Your task to perform on an android device: Show me popular games on the Play Store Image 0: 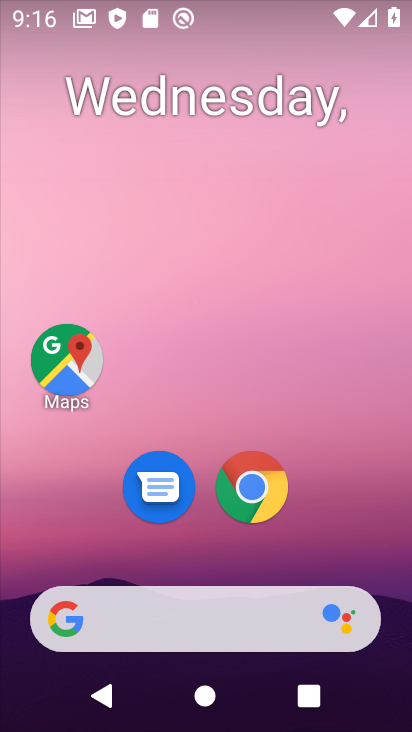
Step 0: drag from (188, 572) to (248, 67)
Your task to perform on an android device: Show me popular games on the Play Store Image 1: 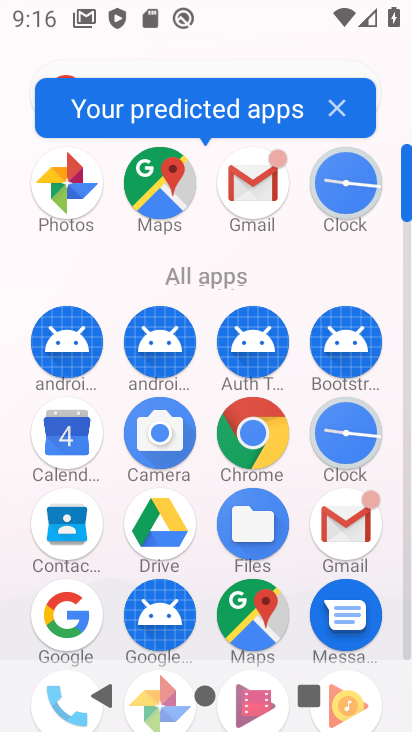
Step 1: drag from (116, 634) to (293, 158)
Your task to perform on an android device: Show me popular games on the Play Store Image 2: 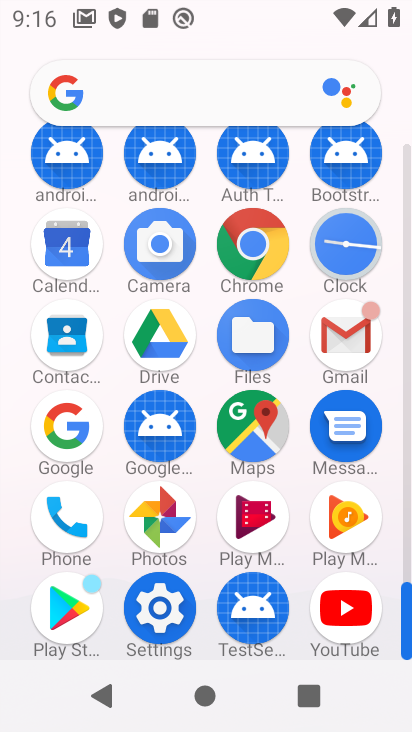
Step 2: click (66, 619)
Your task to perform on an android device: Show me popular games on the Play Store Image 3: 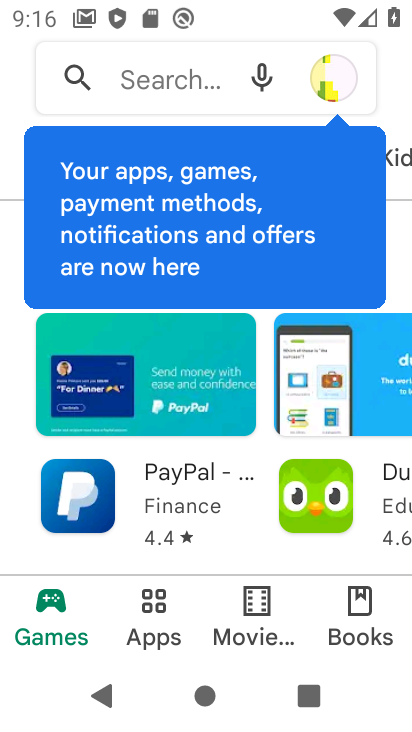
Step 3: drag from (118, 564) to (286, 13)
Your task to perform on an android device: Show me popular games on the Play Store Image 4: 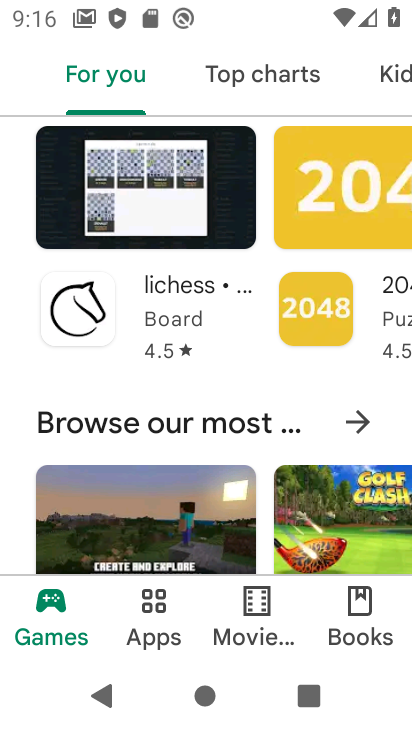
Step 4: drag from (257, 285) to (231, 578)
Your task to perform on an android device: Show me popular games on the Play Store Image 5: 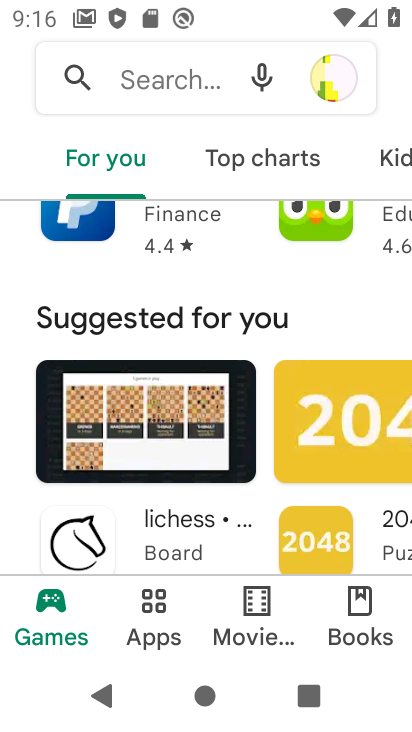
Step 5: drag from (259, 244) to (247, 643)
Your task to perform on an android device: Show me popular games on the Play Store Image 6: 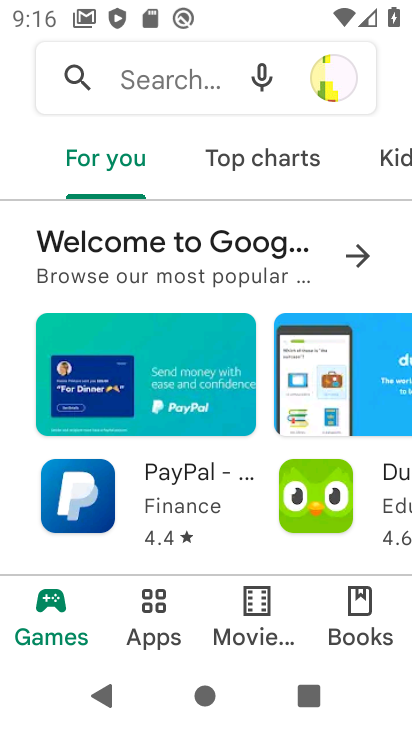
Step 6: drag from (229, 263) to (223, 581)
Your task to perform on an android device: Show me popular games on the Play Store Image 7: 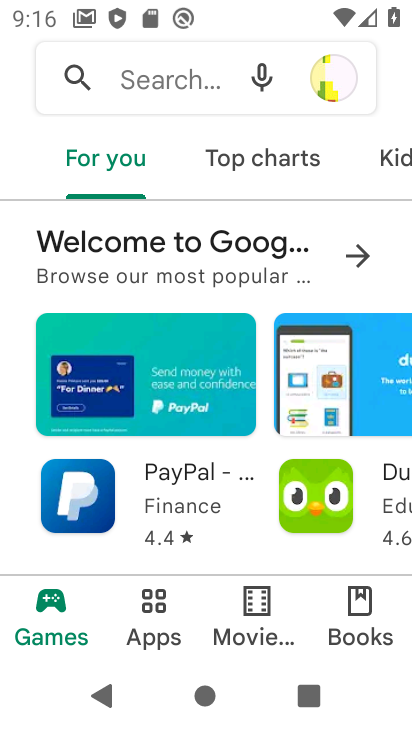
Step 7: drag from (134, 551) to (280, 109)
Your task to perform on an android device: Show me popular games on the Play Store Image 8: 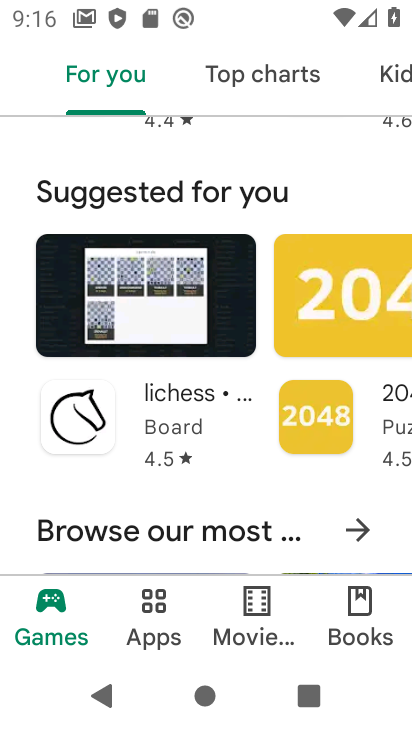
Step 8: drag from (187, 505) to (348, 204)
Your task to perform on an android device: Show me popular games on the Play Store Image 9: 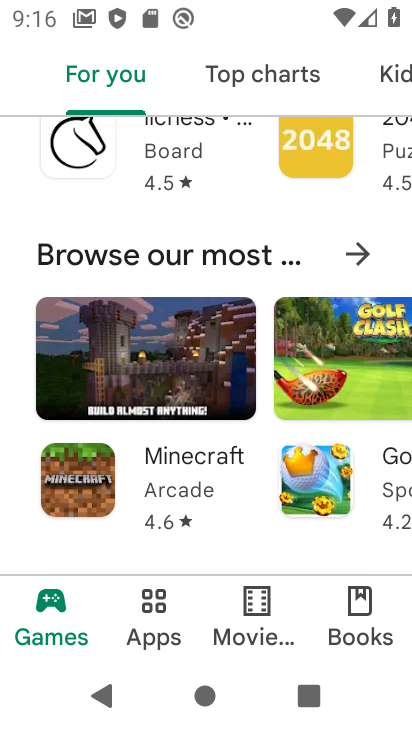
Step 9: drag from (168, 543) to (345, 90)
Your task to perform on an android device: Show me popular games on the Play Store Image 10: 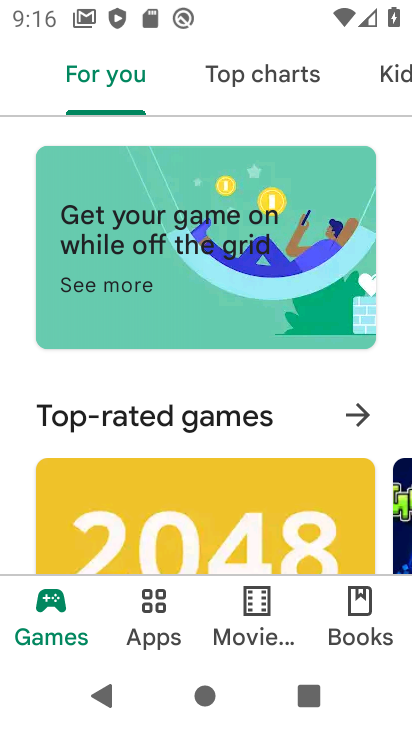
Step 10: drag from (152, 482) to (282, 155)
Your task to perform on an android device: Show me popular games on the Play Store Image 11: 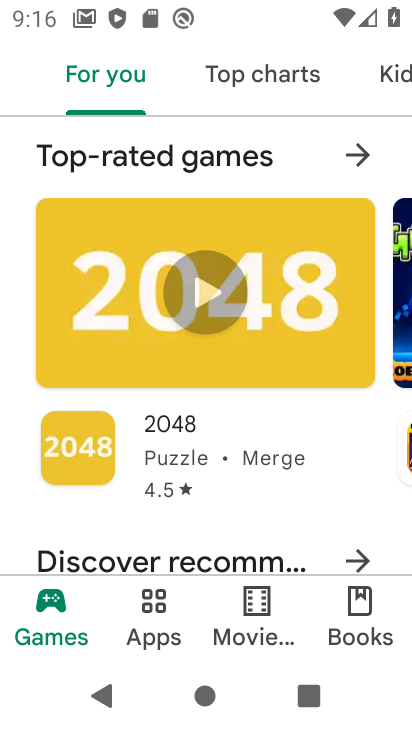
Step 11: drag from (149, 458) to (329, 77)
Your task to perform on an android device: Show me popular games on the Play Store Image 12: 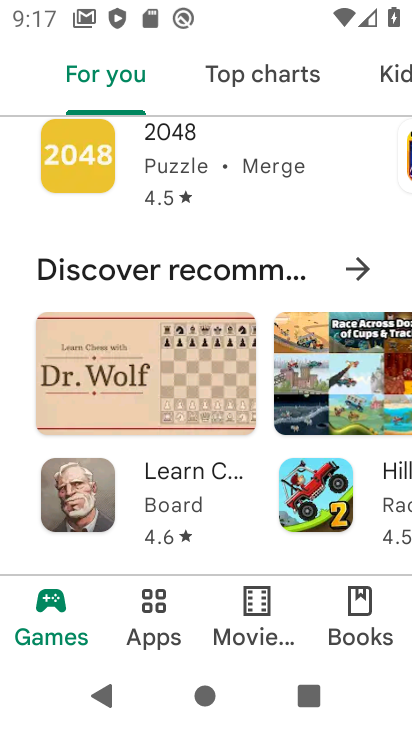
Step 12: drag from (139, 541) to (314, 95)
Your task to perform on an android device: Show me popular games on the Play Store Image 13: 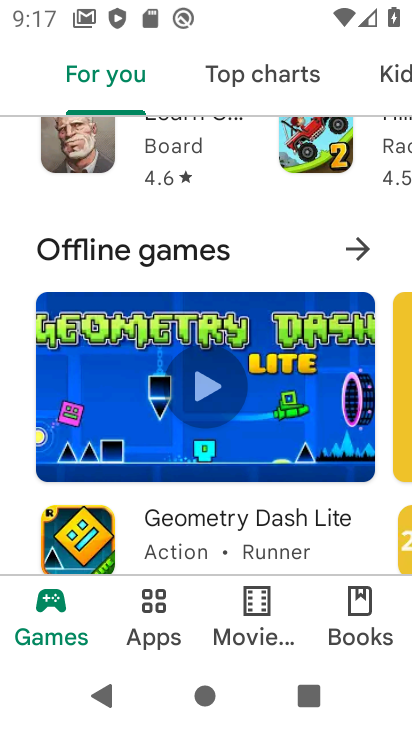
Step 13: drag from (309, 185) to (276, 631)
Your task to perform on an android device: Show me popular games on the Play Store Image 14: 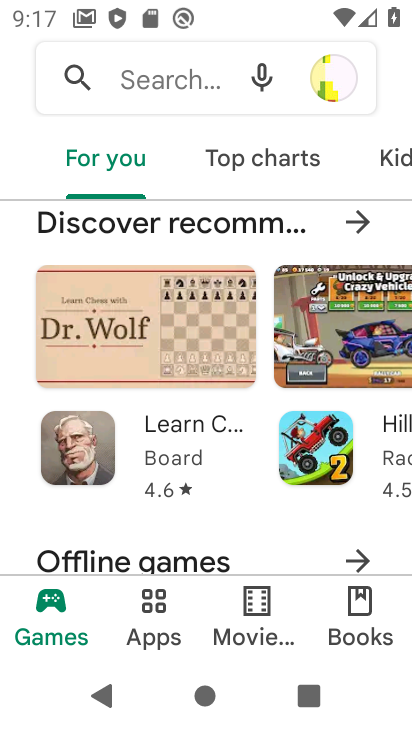
Step 14: drag from (275, 290) to (276, 566)
Your task to perform on an android device: Show me popular games on the Play Store Image 15: 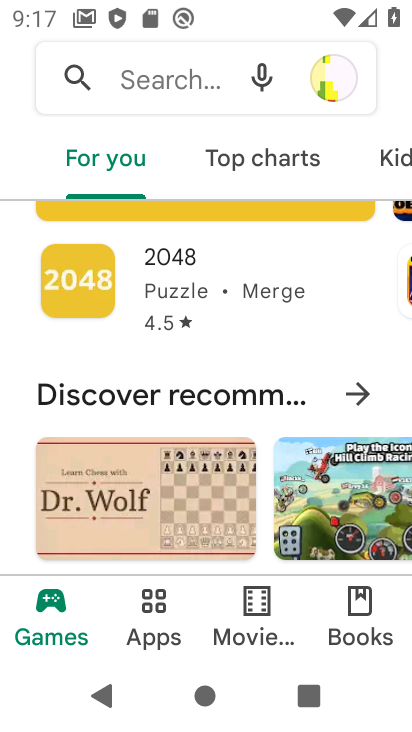
Step 15: drag from (301, 249) to (296, 572)
Your task to perform on an android device: Show me popular games on the Play Store Image 16: 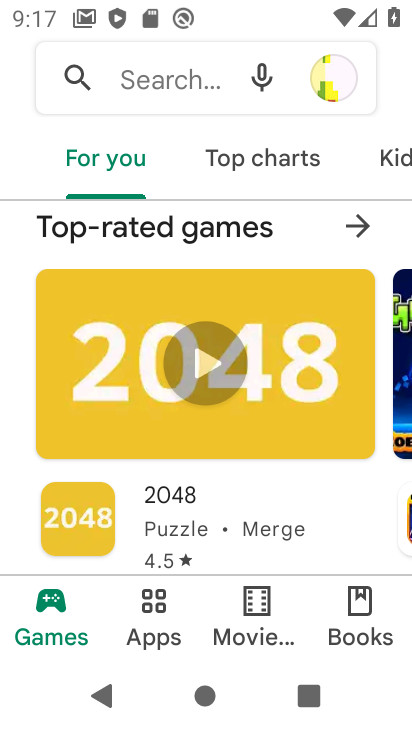
Step 16: drag from (291, 212) to (268, 643)
Your task to perform on an android device: Show me popular games on the Play Store Image 17: 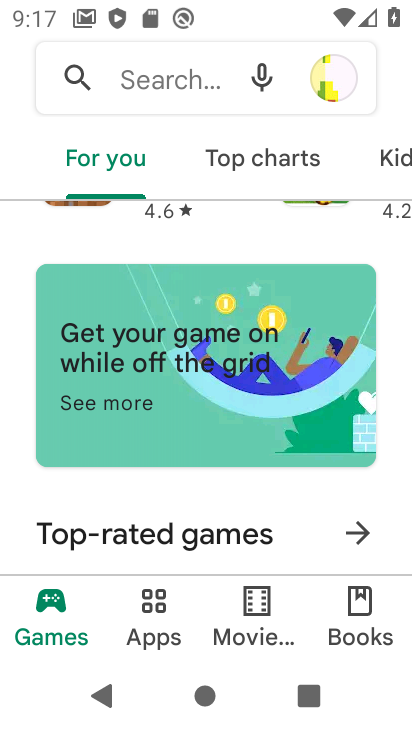
Step 17: drag from (254, 213) to (235, 651)
Your task to perform on an android device: Show me popular games on the Play Store Image 18: 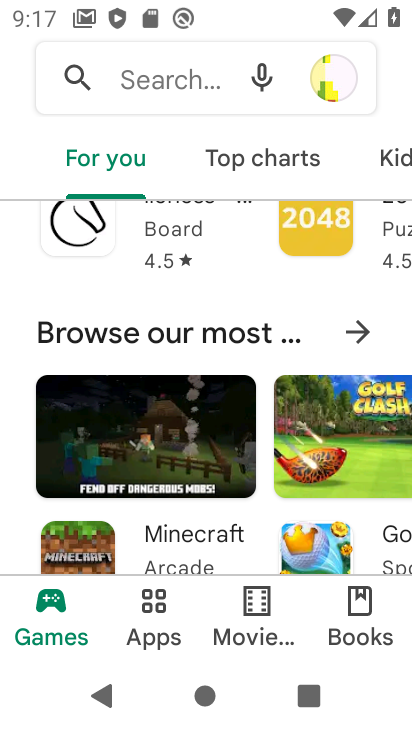
Step 18: click (359, 334)
Your task to perform on an android device: Show me popular games on the Play Store Image 19: 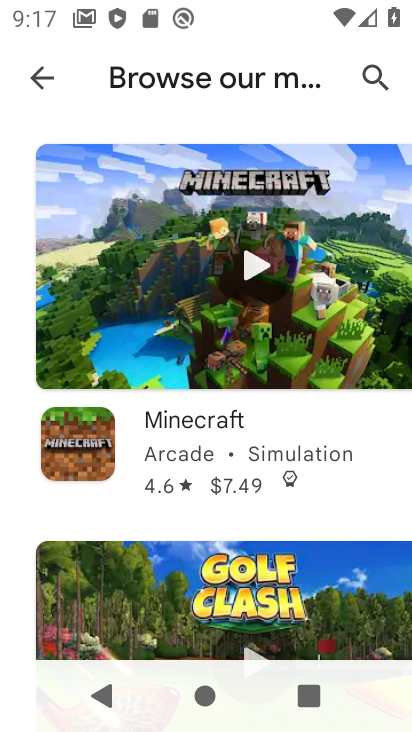
Step 19: task complete